Your task to perform on an android device: turn off notifications in google photos Image 0: 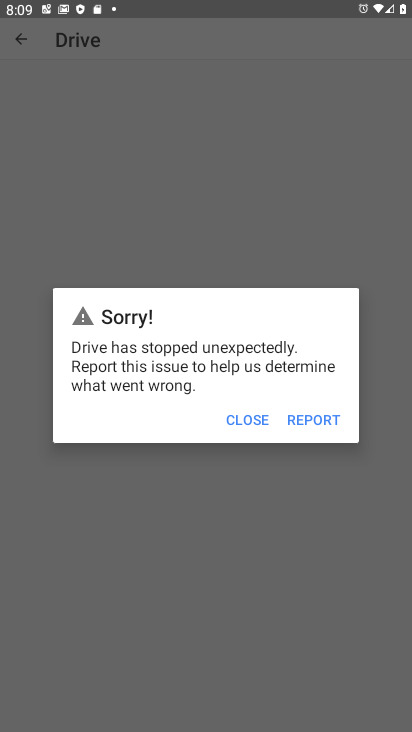
Step 0: press home button
Your task to perform on an android device: turn off notifications in google photos Image 1: 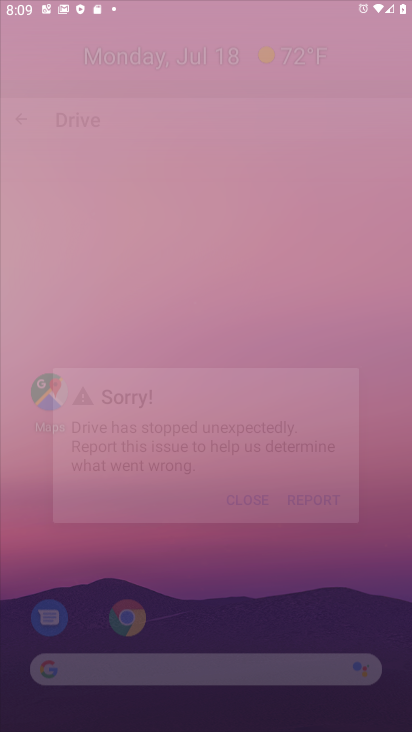
Step 1: drag from (392, 681) to (226, 7)
Your task to perform on an android device: turn off notifications in google photos Image 2: 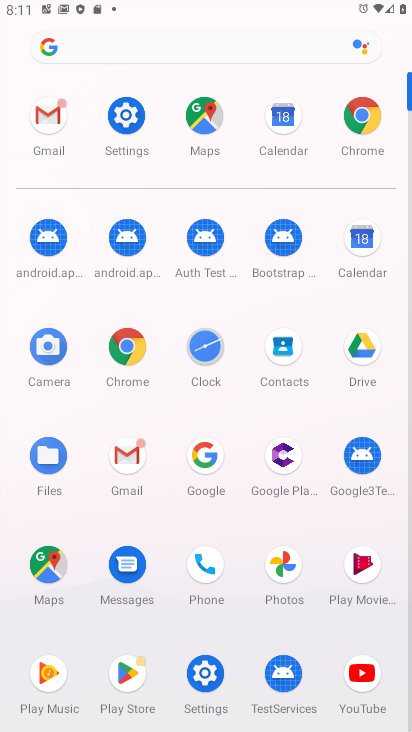
Step 2: click (272, 570)
Your task to perform on an android device: turn off notifications in google photos Image 3: 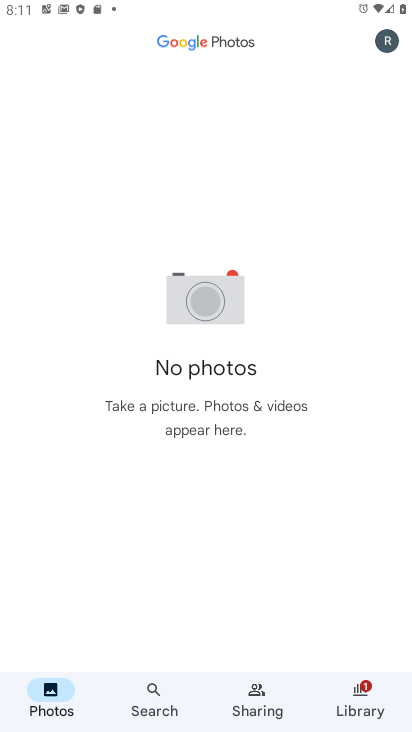
Step 3: click (393, 42)
Your task to perform on an android device: turn off notifications in google photos Image 4: 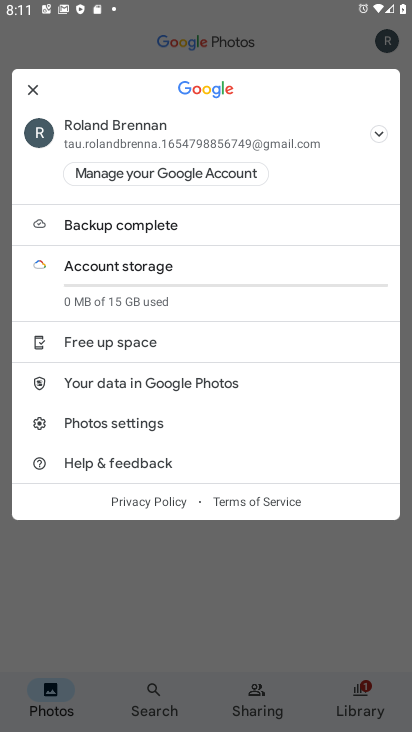
Step 4: click (103, 420)
Your task to perform on an android device: turn off notifications in google photos Image 5: 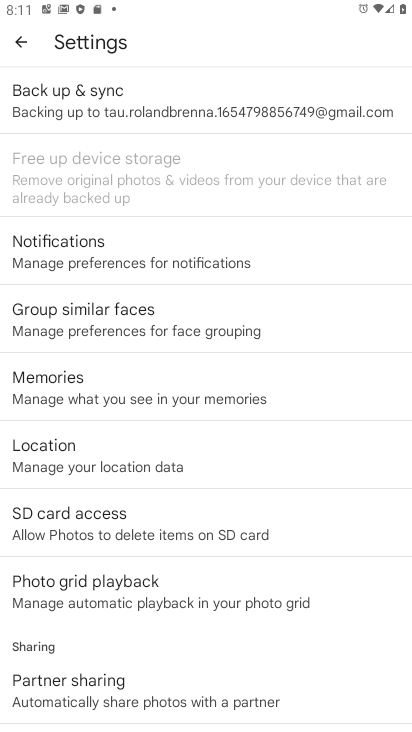
Step 5: click (87, 269)
Your task to perform on an android device: turn off notifications in google photos Image 6: 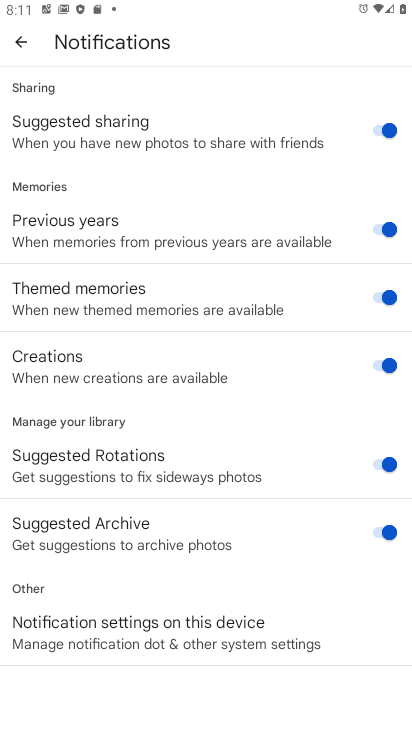
Step 6: click (370, 141)
Your task to perform on an android device: turn off notifications in google photos Image 7: 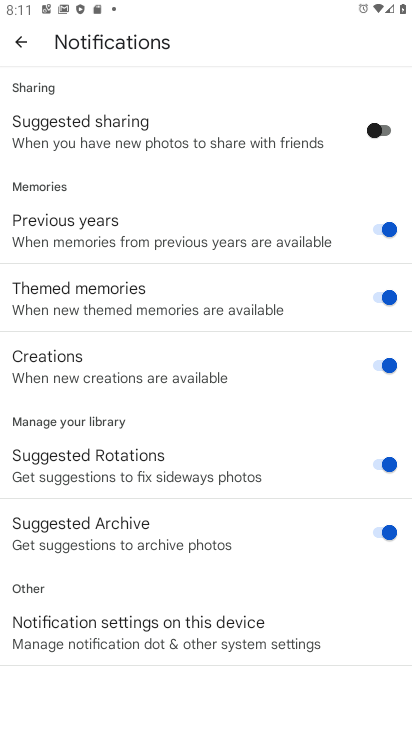
Step 7: task complete